Your task to perform on an android device: Open Yahoo.com Image 0: 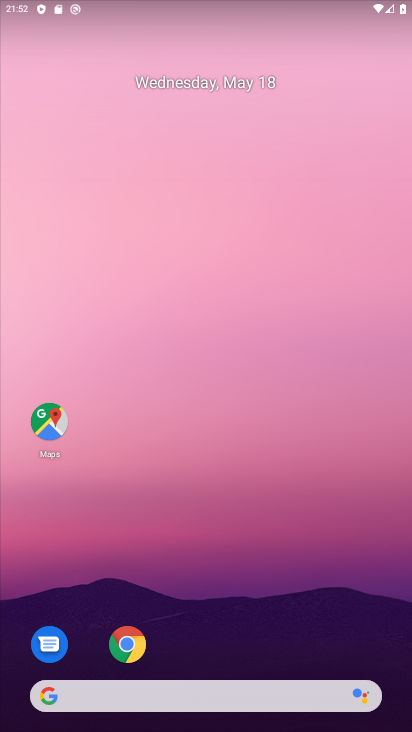
Step 0: click (130, 638)
Your task to perform on an android device: Open Yahoo.com Image 1: 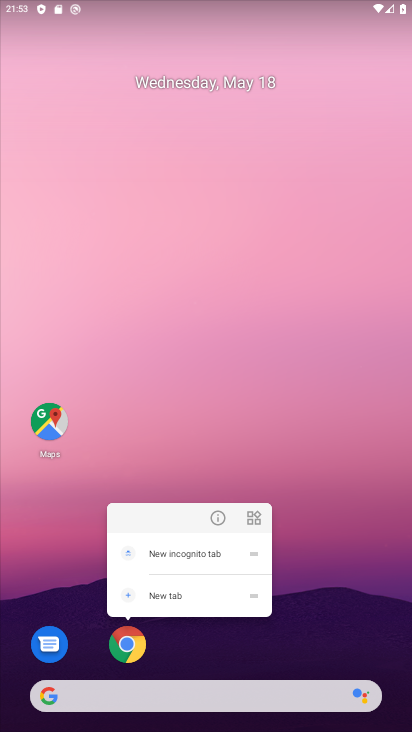
Step 1: click (128, 647)
Your task to perform on an android device: Open Yahoo.com Image 2: 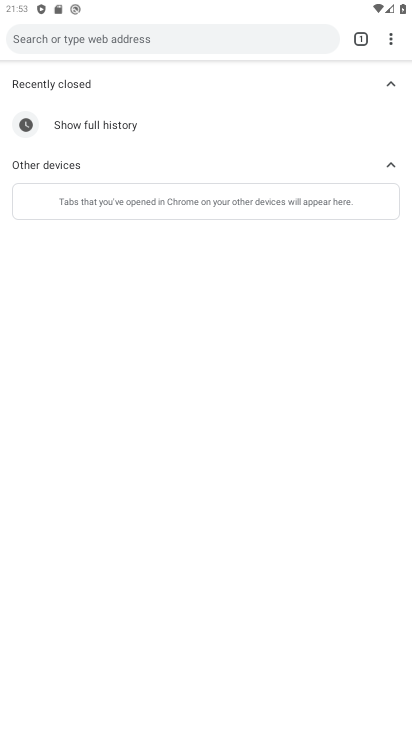
Step 2: click (178, 39)
Your task to perform on an android device: Open Yahoo.com Image 3: 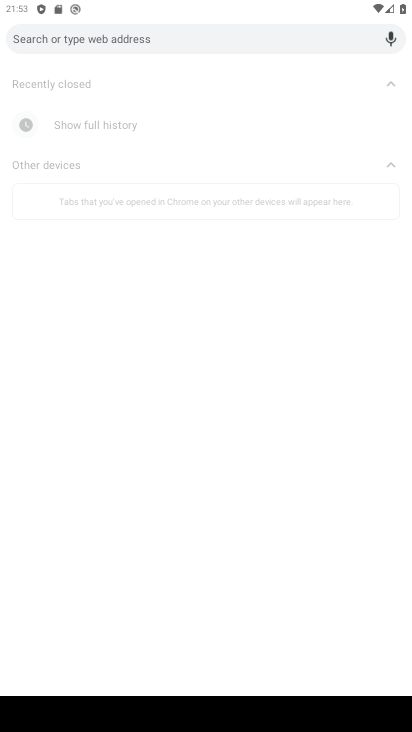
Step 3: type "yahoo.com"
Your task to perform on an android device: Open Yahoo.com Image 4: 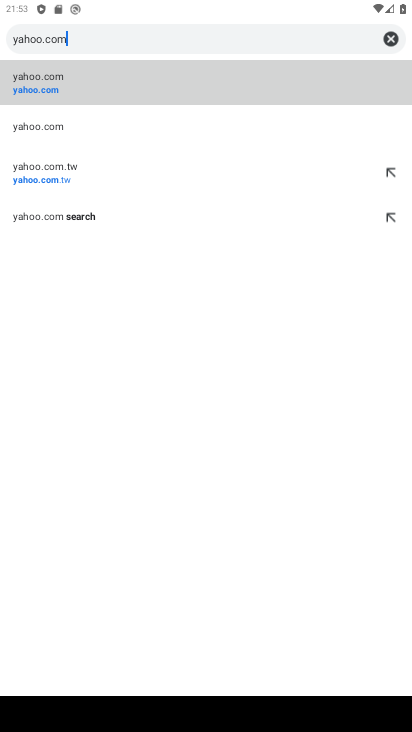
Step 4: click (29, 92)
Your task to perform on an android device: Open Yahoo.com Image 5: 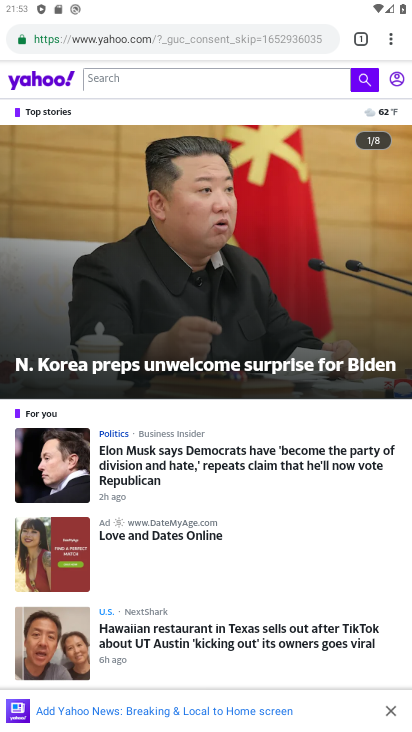
Step 5: task complete